Your task to perform on an android device: Go to Google Image 0: 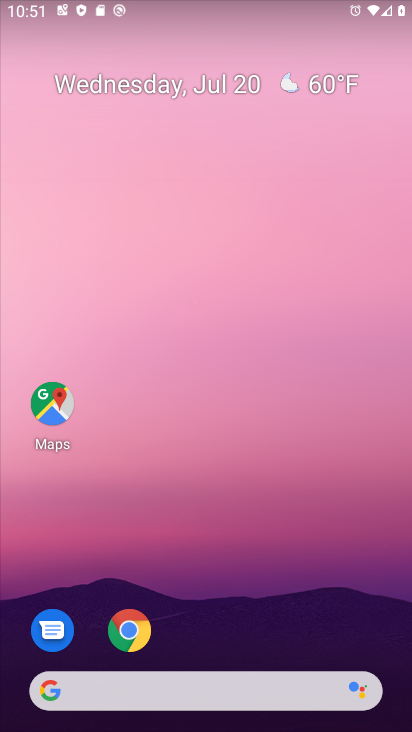
Step 0: drag from (222, 683) to (198, 90)
Your task to perform on an android device: Go to Google Image 1: 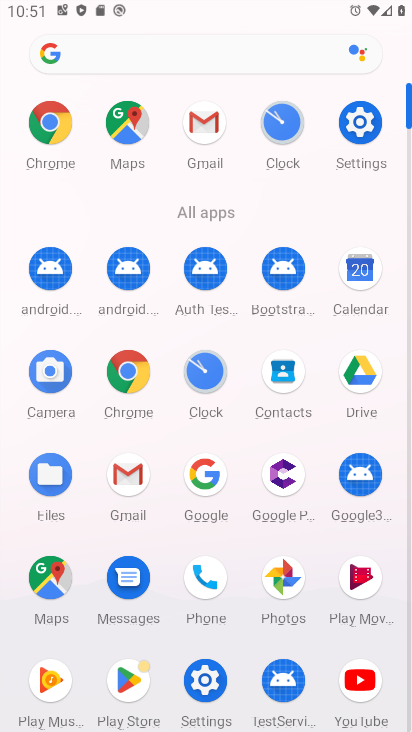
Step 1: click (207, 476)
Your task to perform on an android device: Go to Google Image 2: 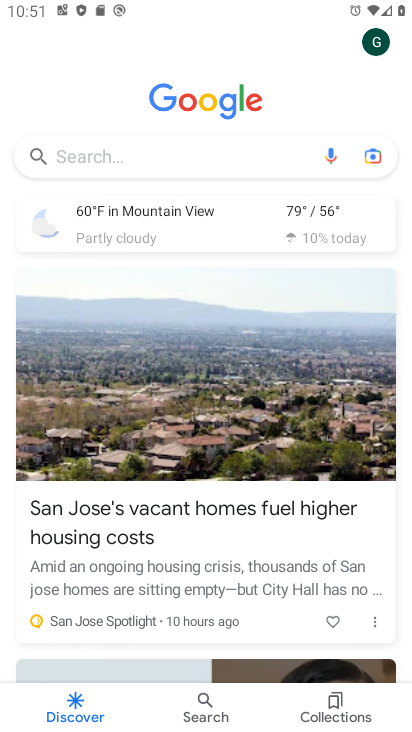
Step 2: task complete